Your task to perform on an android device: toggle translation in the chrome app Image 0: 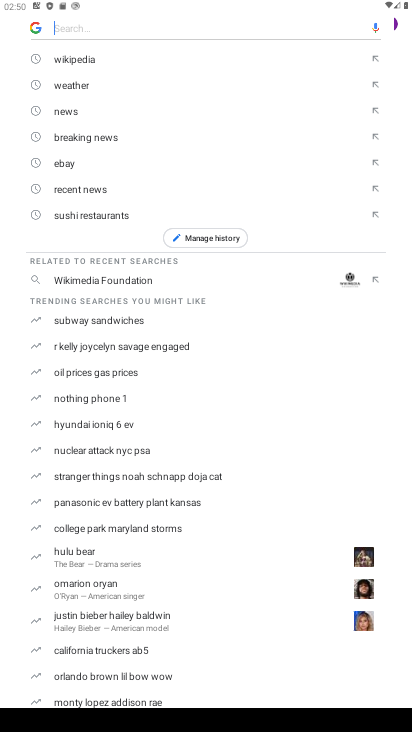
Step 0: press back button
Your task to perform on an android device: toggle translation in the chrome app Image 1: 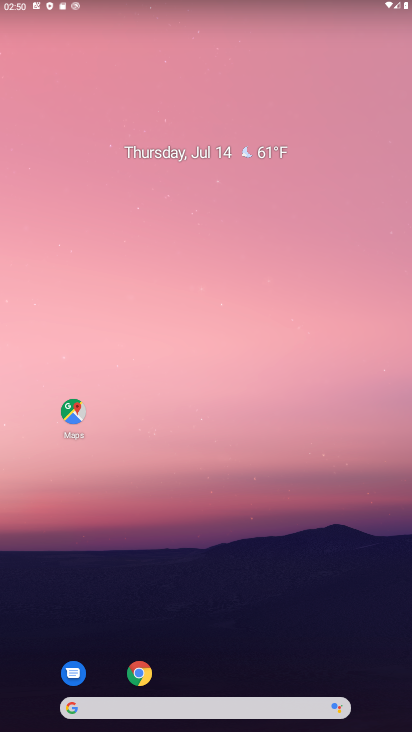
Step 1: press back button
Your task to perform on an android device: toggle translation in the chrome app Image 2: 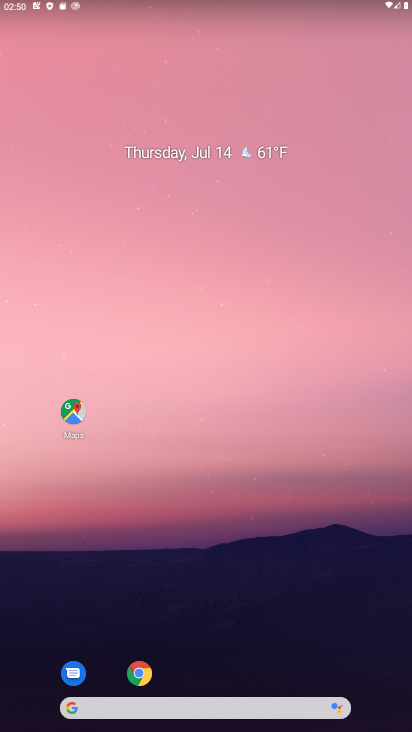
Step 2: click (130, 678)
Your task to perform on an android device: toggle translation in the chrome app Image 3: 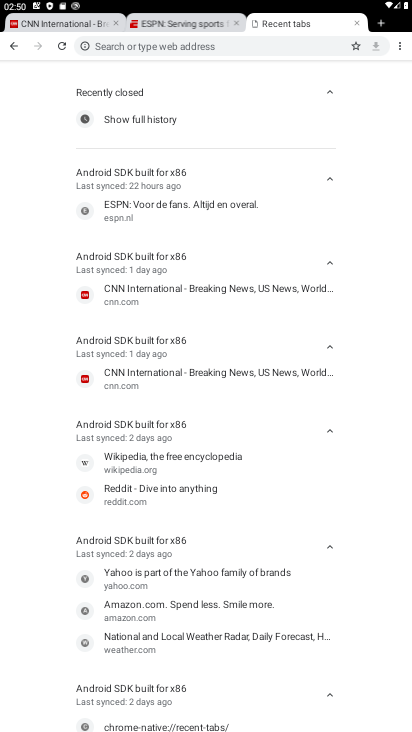
Step 3: click (394, 43)
Your task to perform on an android device: toggle translation in the chrome app Image 4: 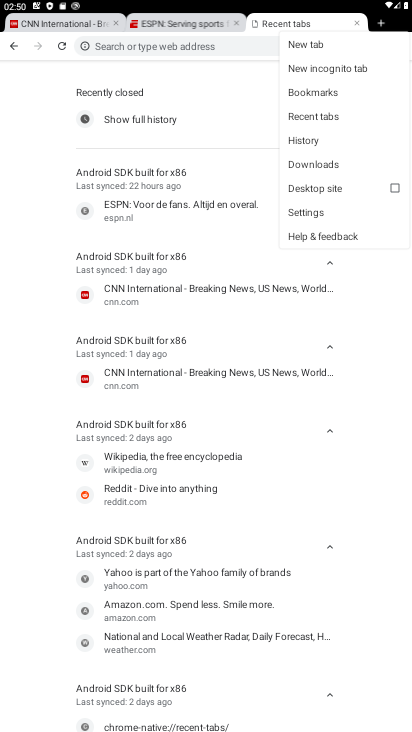
Step 4: click (324, 206)
Your task to perform on an android device: toggle translation in the chrome app Image 5: 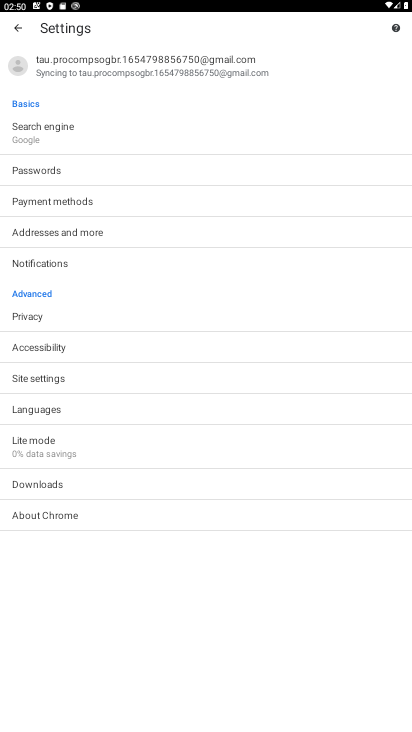
Step 5: click (140, 413)
Your task to perform on an android device: toggle translation in the chrome app Image 6: 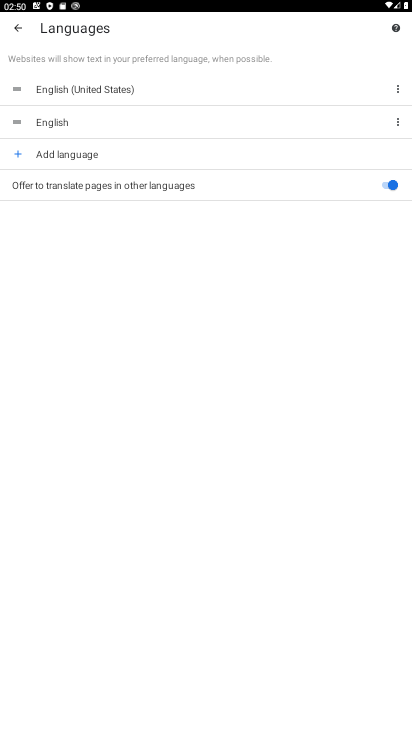
Step 6: click (373, 197)
Your task to perform on an android device: toggle translation in the chrome app Image 7: 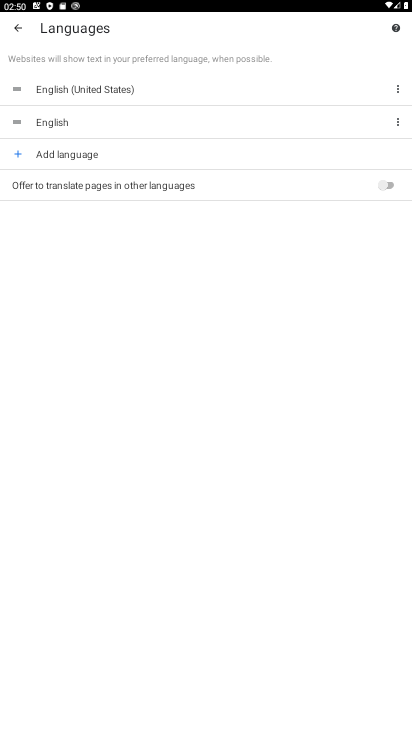
Step 7: task complete